Your task to perform on an android device: delete browsing data in the chrome app Image 0: 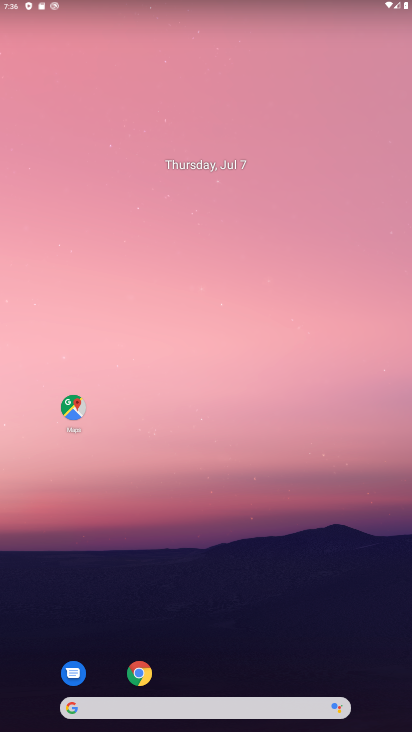
Step 0: click (140, 675)
Your task to perform on an android device: delete browsing data in the chrome app Image 1: 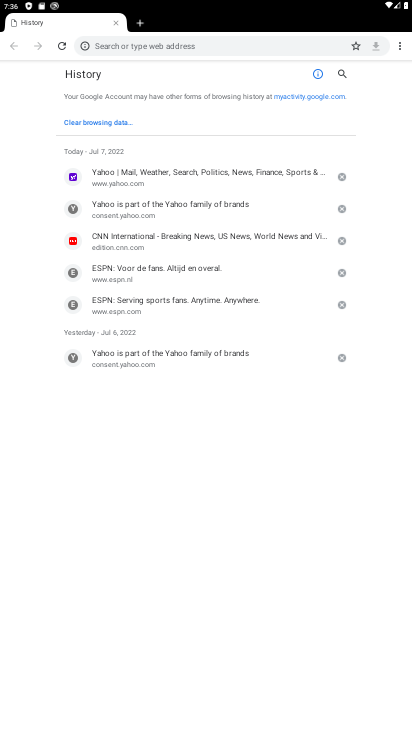
Step 1: click (101, 127)
Your task to perform on an android device: delete browsing data in the chrome app Image 2: 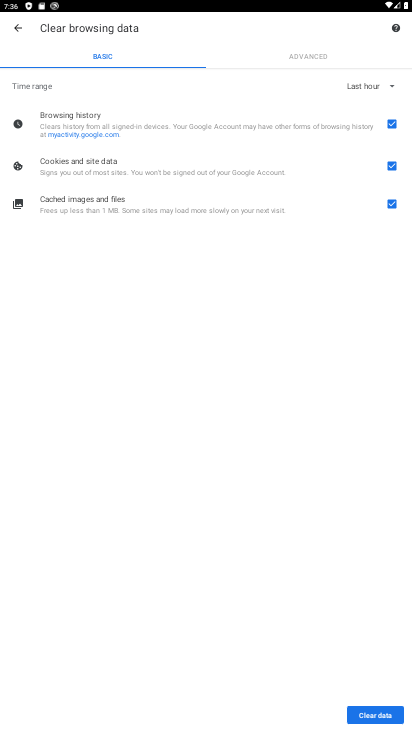
Step 2: click (389, 715)
Your task to perform on an android device: delete browsing data in the chrome app Image 3: 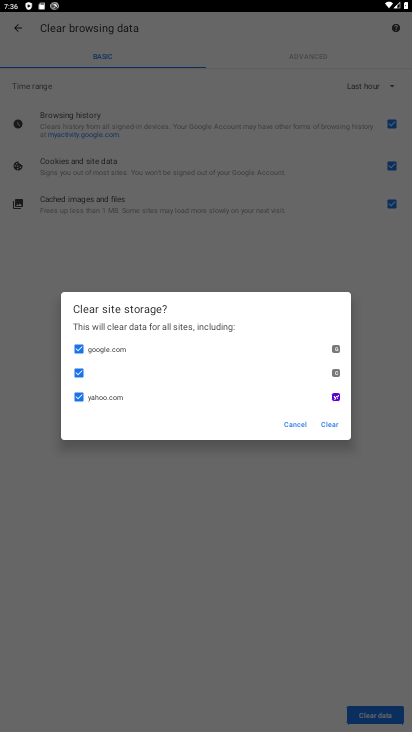
Step 3: click (332, 425)
Your task to perform on an android device: delete browsing data in the chrome app Image 4: 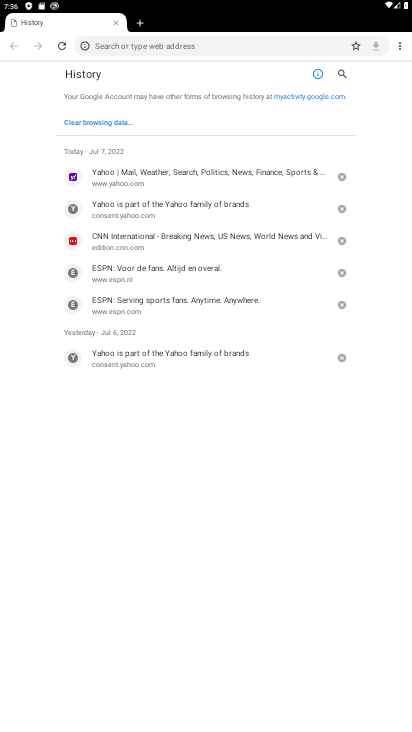
Step 4: task complete